Your task to perform on an android device: Open the web browser Image 0: 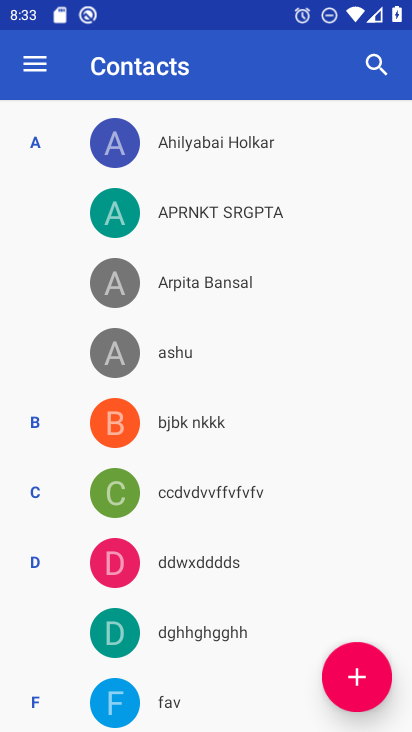
Step 0: press home button
Your task to perform on an android device: Open the web browser Image 1: 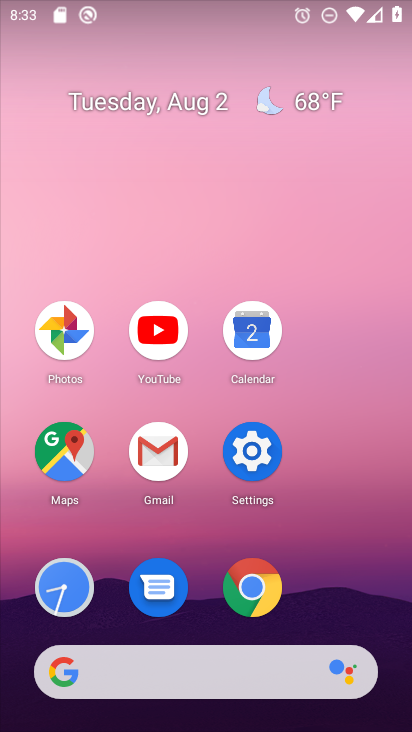
Step 1: click (251, 591)
Your task to perform on an android device: Open the web browser Image 2: 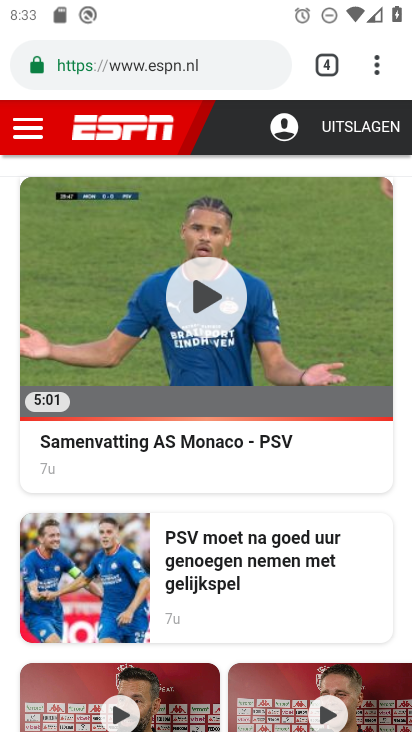
Step 2: task complete